Your task to perform on an android device: toggle notification dots Image 0: 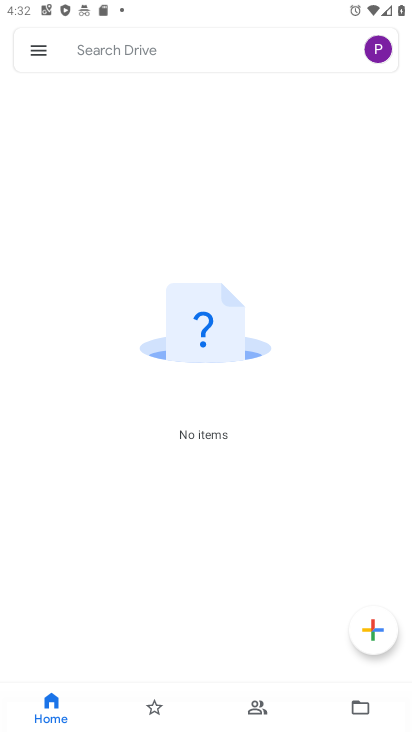
Step 0: press back button
Your task to perform on an android device: toggle notification dots Image 1: 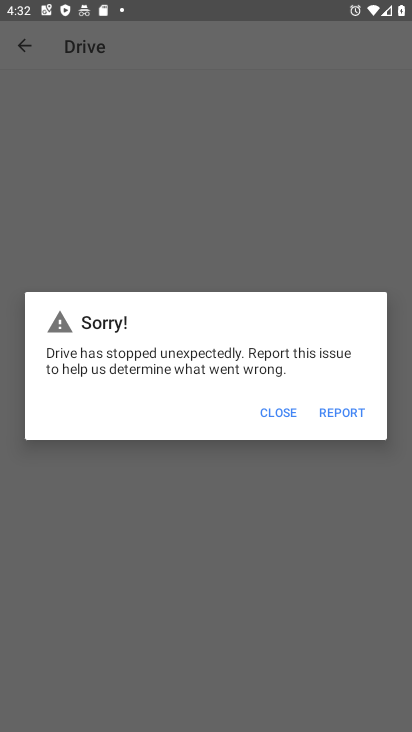
Step 1: click (260, 410)
Your task to perform on an android device: toggle notification dots Image 2: 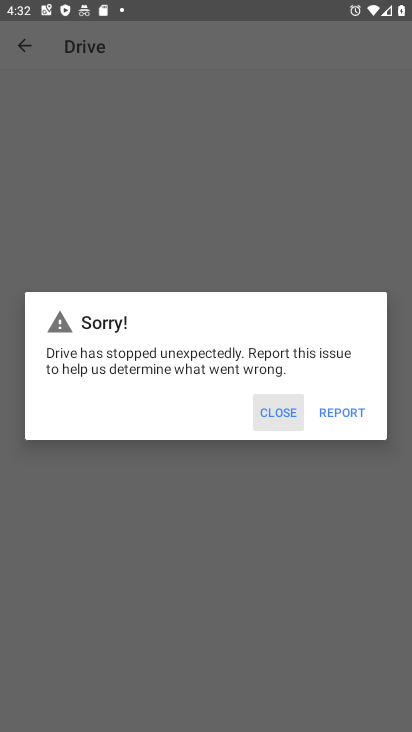
Step 2: click (262, 407)
Your task to perform on an android device: toggle notification dots Image 3: 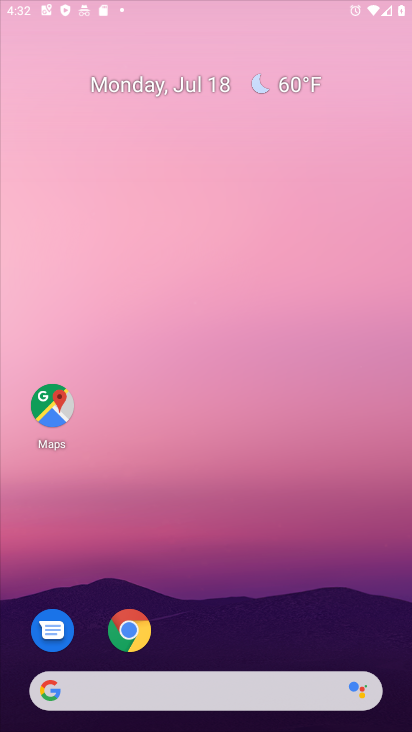
Step 3: drag from (231, 401) to (138, 81)
Your task to perform on an android device: toggle notification dots Image 4: 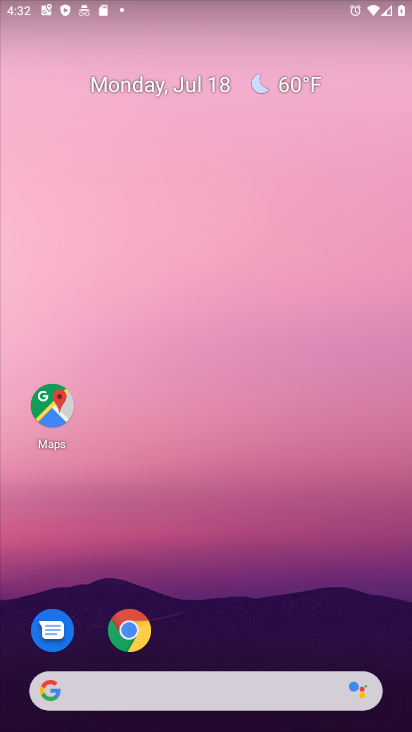
Step 4: drag from (229, 653) to (94, 28)
Your task to perform on an android device: toggle notification dots Image 5: 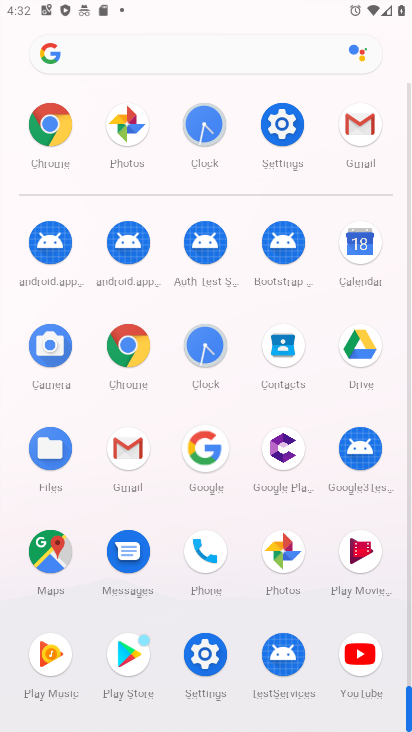
Step 5: click (200, 646)
Your task to perform on an android device: toggle notification dots Image 6: 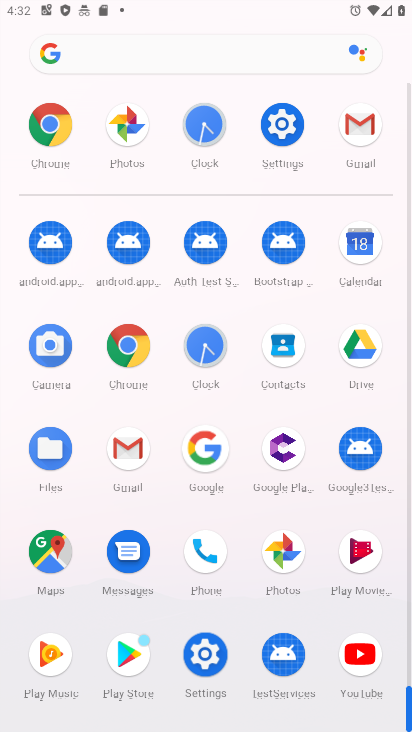
Step 6: click (200, 649)
Your task to perform on an android device: toggle notification dots Image 7: 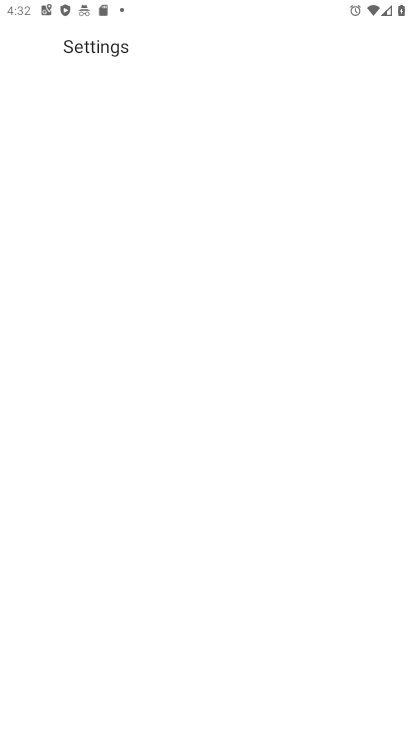
Step 7: click (202, 651)
Your task to perform on an android device: toggle notification dots Image 8: 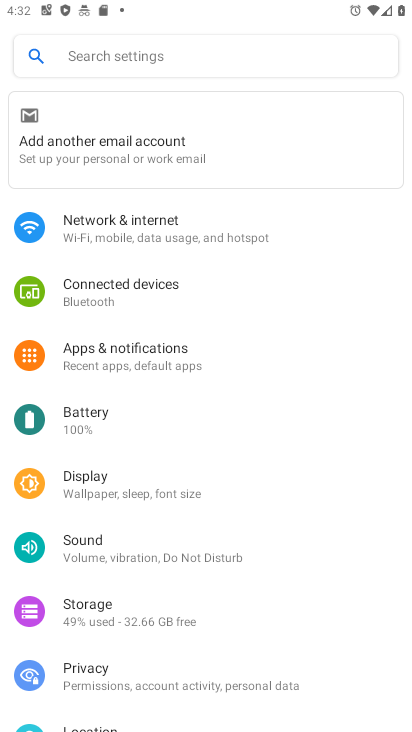
Step 8: click (206, 653)
Your task to perform on an android device: toggle notification dots Image 9: 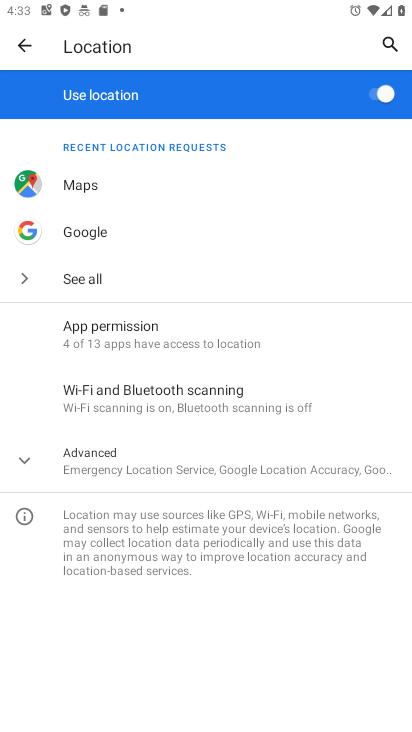
Step 9: click (98, 466)
Your task to perform on an android device: toggle notification dots Image 10: 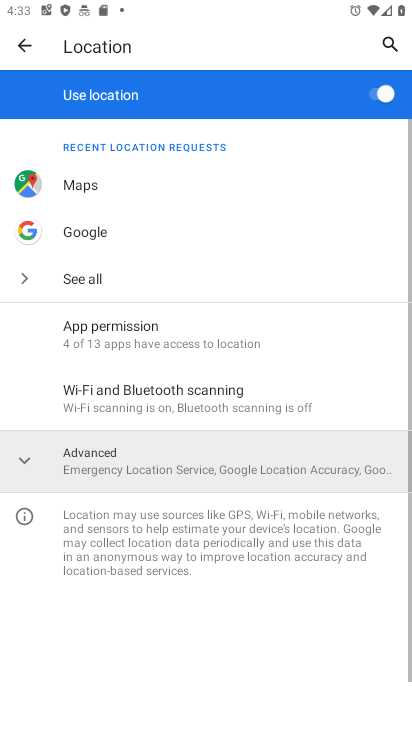
Step 10: click (99, 466)
Your task to perform on an android device: toggle notification dots Image 11: 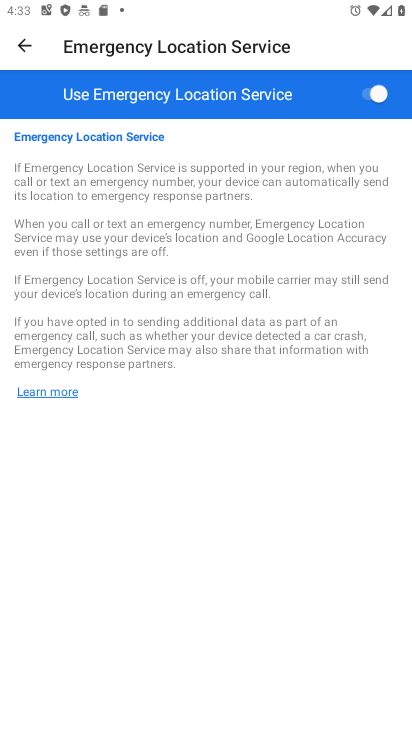
Step 11: click (17, 44)
Your task to perform on an android device: toggle notification dots Image 12: 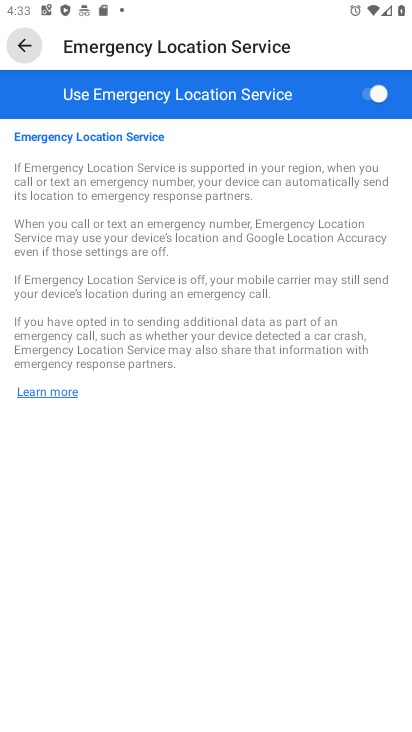
Step 12: click (22, 39)
Your task to perform on an android device: toggle notification dots Image 13: 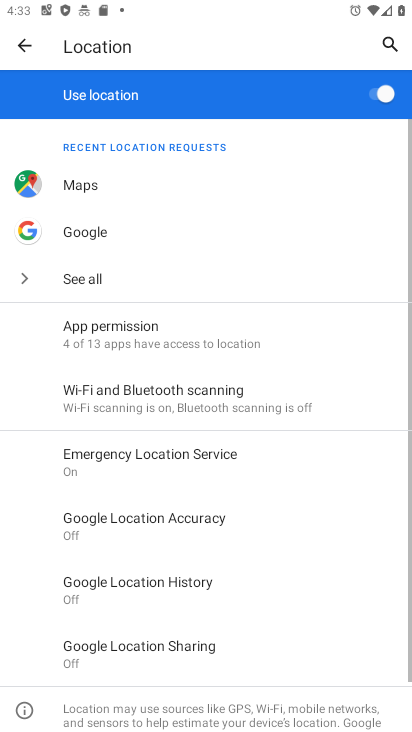
Step 13: click (7, 41)
Your task to perform on an android device: toggle notification dots Image 14: 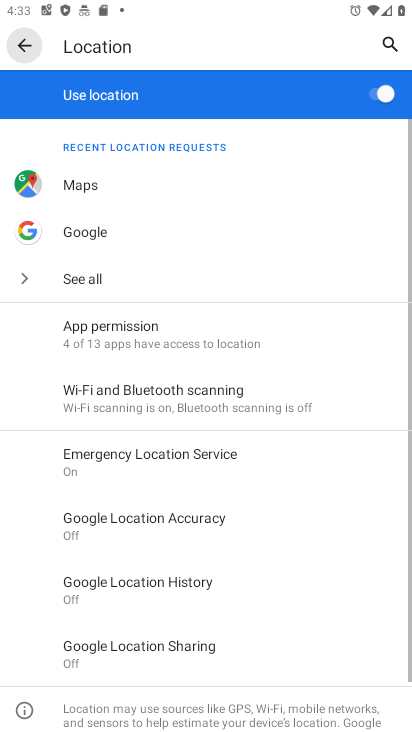
Step 14: click (19, 47)
Your task to perform on an android device: toggle notification dots Image 15: 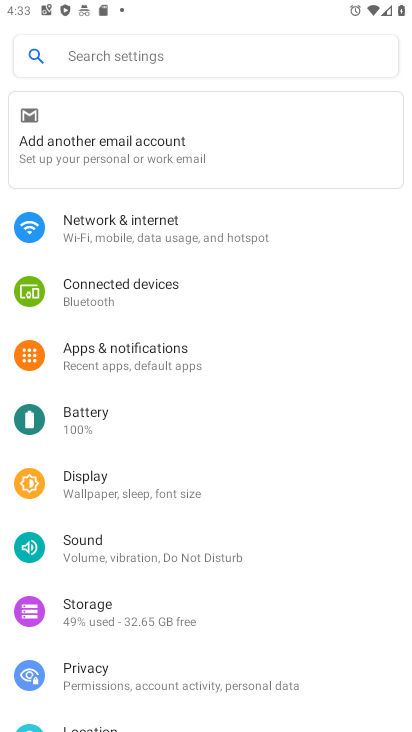
Step 15: click (125, 357)
Your task to perform on an android device: toggle notification dots Image 16: 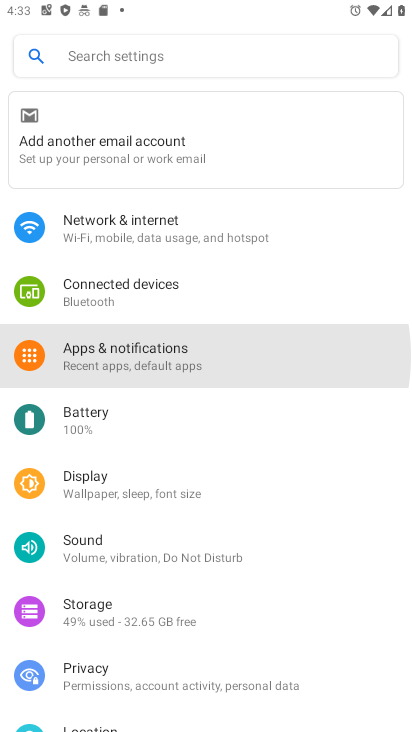
Step 16: click (125, 357)
Your task to perform on an android device: toggle notification dots Image 17: 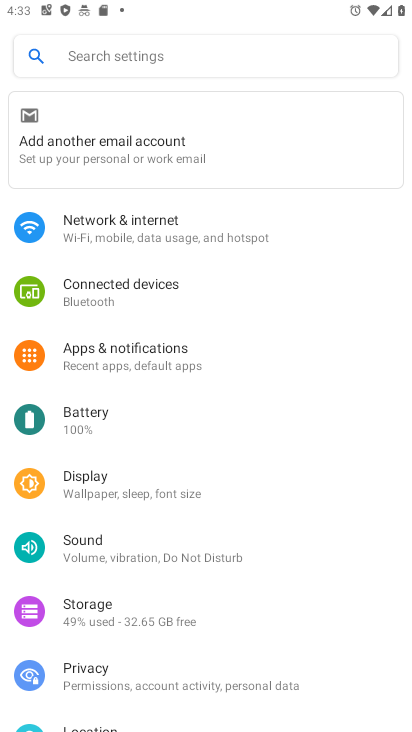
Step 17: click (125, 357)
Your task to perform on an android device: toggle notification dots Image 18: 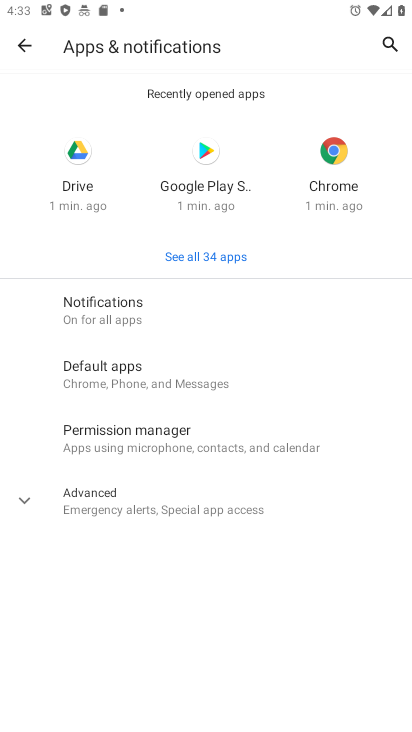
Step 18: click (97, 309)
Your task to perform on an android device: toggle notification dots Image 19: 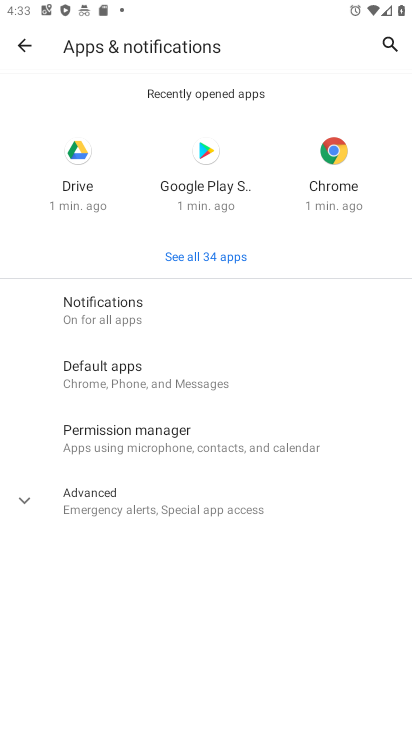
Step 19: click (97, 308)
Your task to perform on an android device: toggle notification dots Image 20: 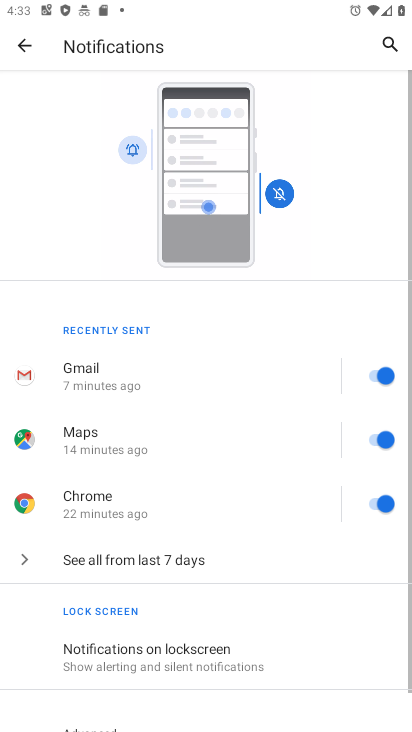
Step 20: drag from (192, 564) to (191, 278)
Your task to perform on an android device: toggle notification dots Image 21: 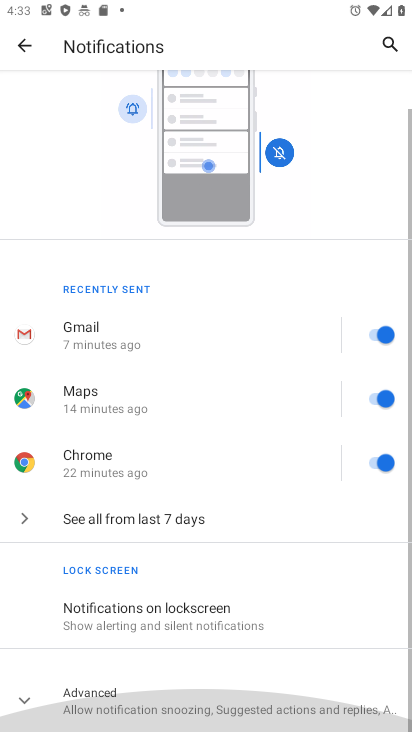
Step 21: drag from (193, 552) to (208, 255)
Your task to perform on an android device: toggle notification dots Image 22: 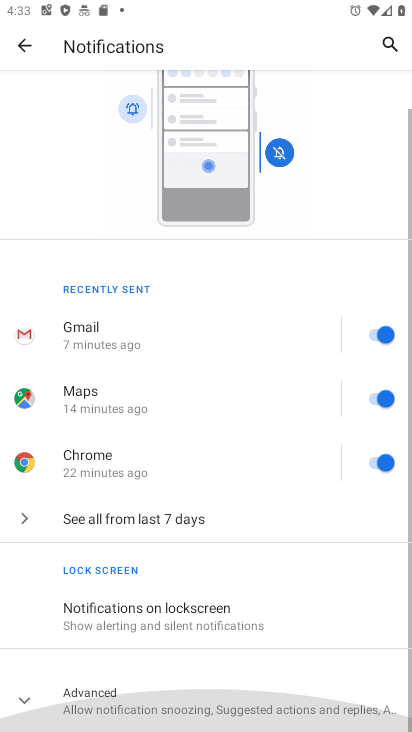
Step 22: drag from (261, 515) to (247, 372)
Your task to perform on an android device: toggle notification dots Image 23: 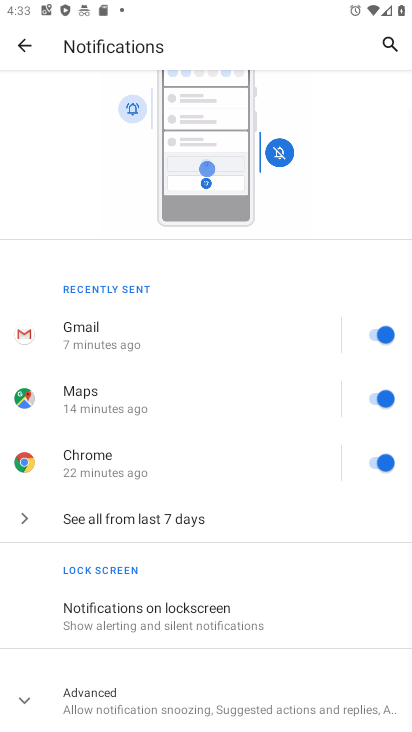
Step 23: click (90, 706)
Your task to perform on an android device: toggle notification dots Image 24: 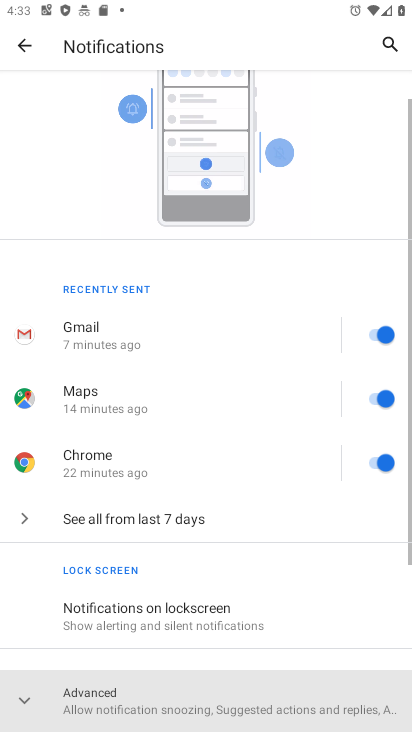
Step 24: click (92, 706)
Your task to perform on an android device: toggle notification dots Image 25: 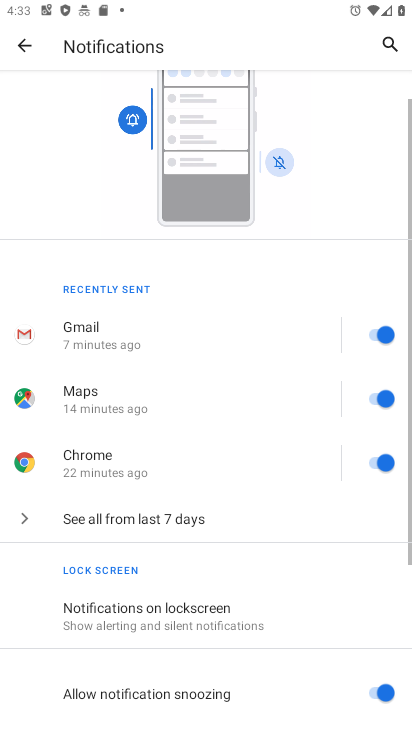
Step 25: drag from (296, 643) to (275, 310)
Your task to perform on an android device: toggle notification dots Image 26: 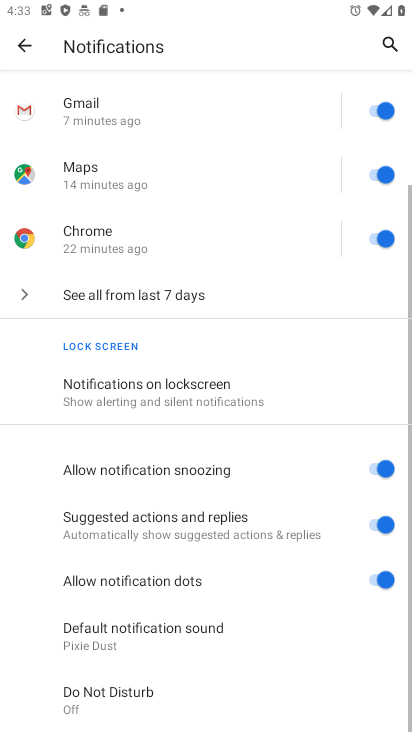
Step 26: drag from (301, 502) to (247, 239)
Your task to perform on an android device: toggle notification dots Image 27: 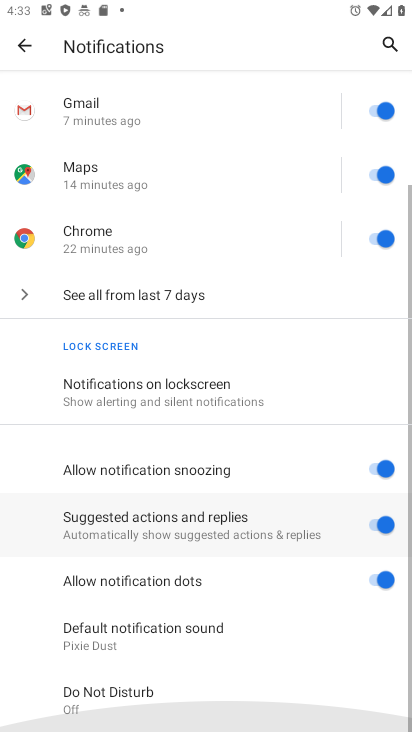
Step 27: drag from (221, 703) to (171, 347)
Your task to perform on an android device: toggle notification dots Image 28: 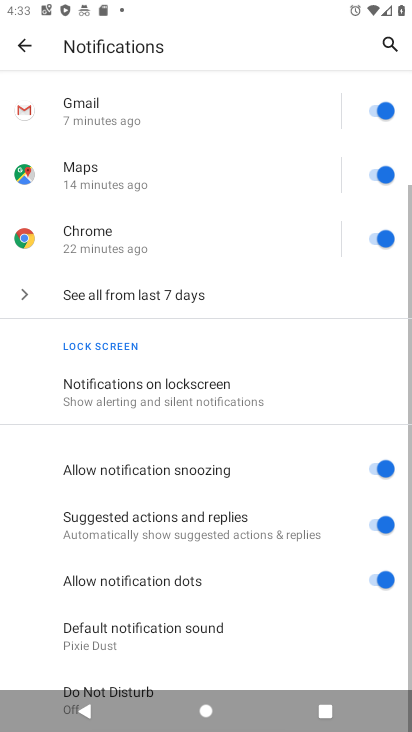
Step 28: click (390, 579)
Your task to perform on an android device: toggle notification dots Image 29: 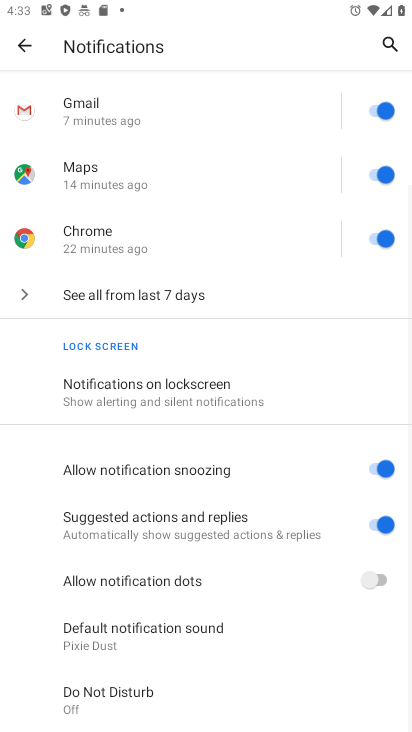
Step 29: task complete